Your task to perform on an android device: turn off notifications settings in the gmail app Image 0: 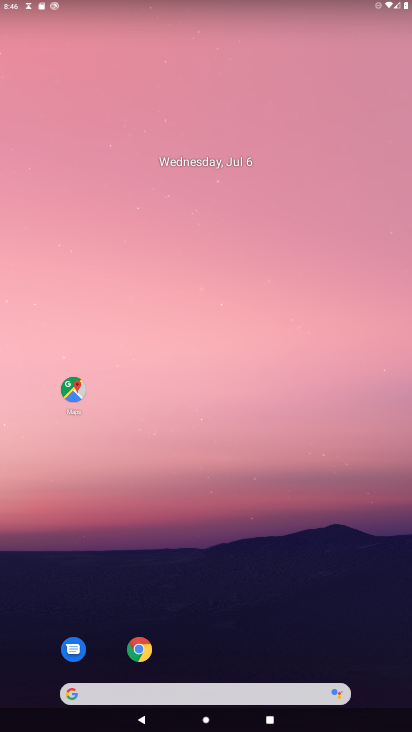
Step 0: drag from (331, 689) to (220, 191)
Your task to perform on an android device: turn off notifications settings in the gmail app Image 1: 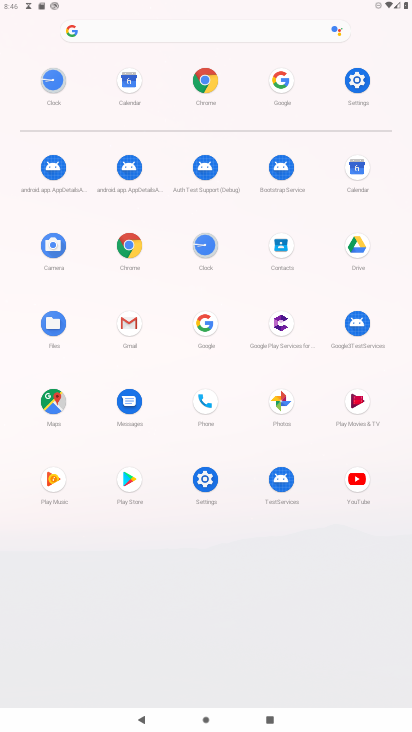
Step 1: click (130, 320)
Your task to perform on an android device: turn off notifications settings in the gmail app Image 2: 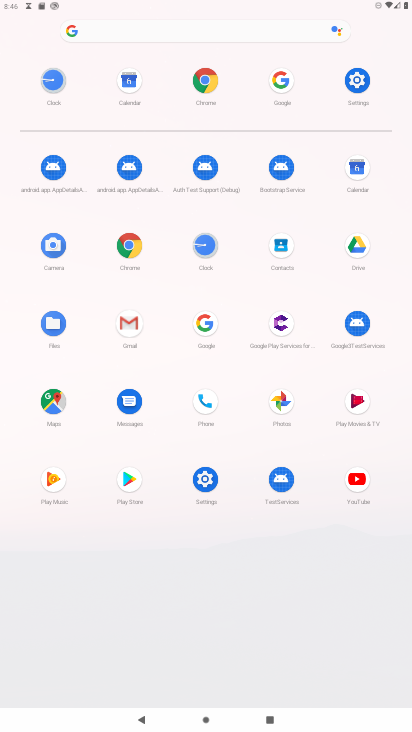
Step 2: click (134, 320)
Your task to perform on an android device: turn off notifications settings in the gmail app Image 3: 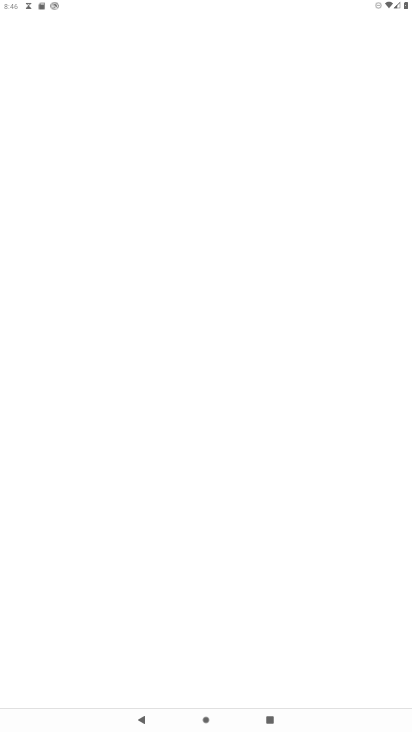
Step 3: click (141, 319)
Your task to perform on an android device: turn off notifications settings in the gmail app Image 4: 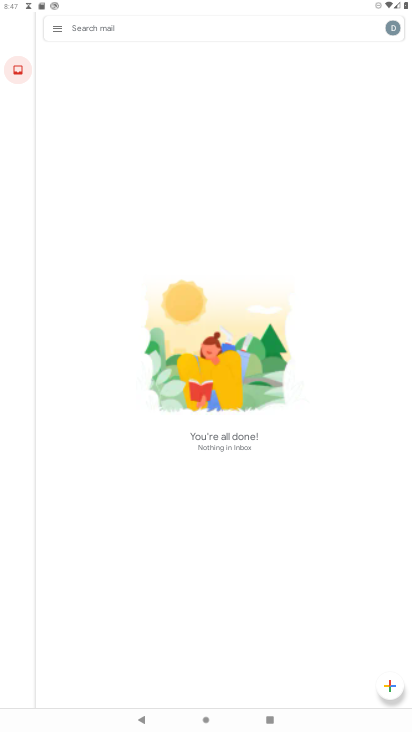
Step 4: click (56, 30)
Your task to perform on an android device: turn off notifications settings in the gmail app Image 5: 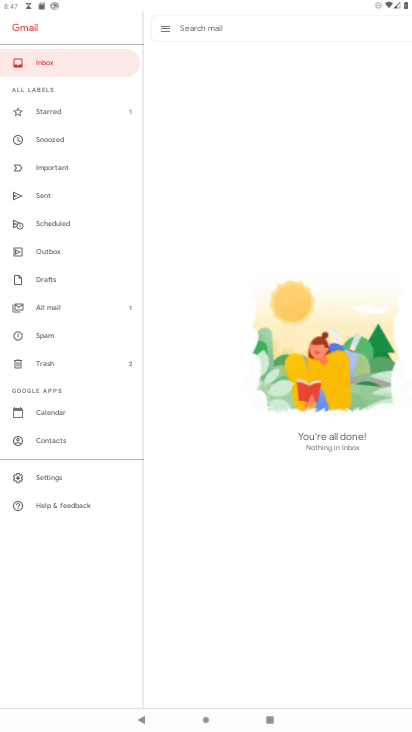
Step 5: click (55, 477)
Your task to perform on an android device: turn off notifications settings in the gmail app Image 6: 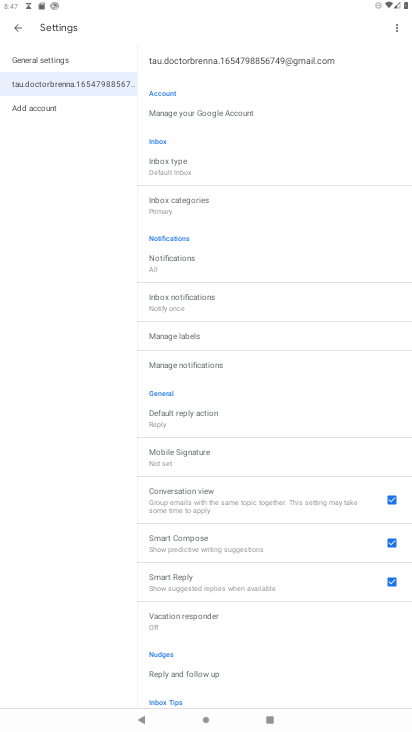
Step 6: click (165, 262)
Your task to perform on an android device: turn off notifications settings in the gmail app Image 7: 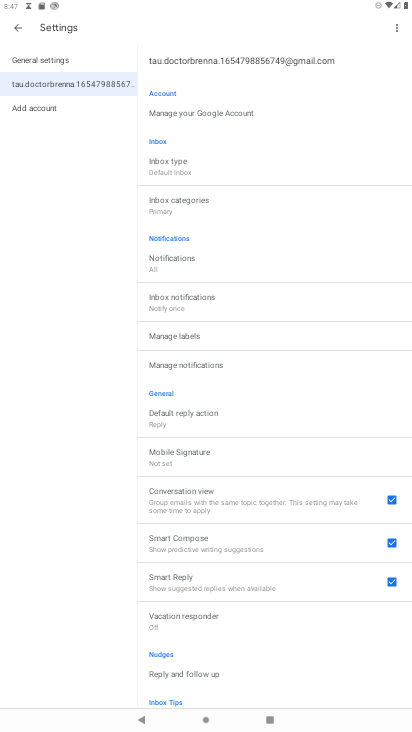
Step 7: click (167, 260)
Your task to perform on an android device: turn off notifications settings in the gmail app Image 8: 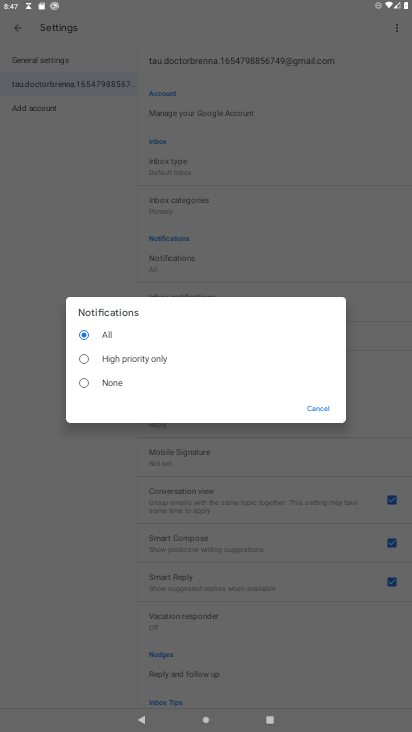
Step 8: click (91, 380)
Your task to perform on an android device: turn off notifications settings in the gmail app Image 9: 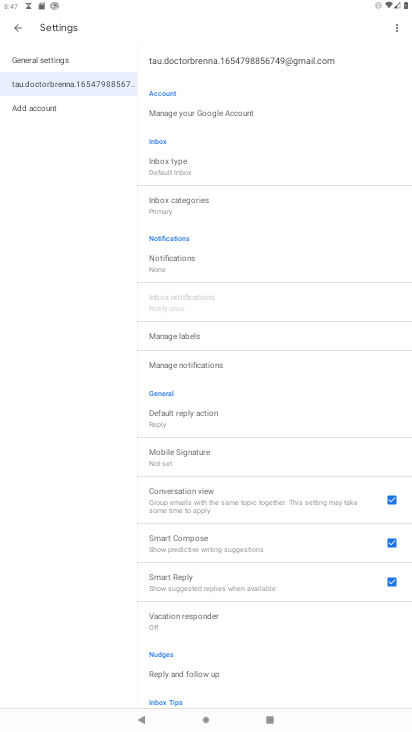
Step 9: task complete